Your task to perform on an android device: toggle priority inbox in the gmail app Image 0: 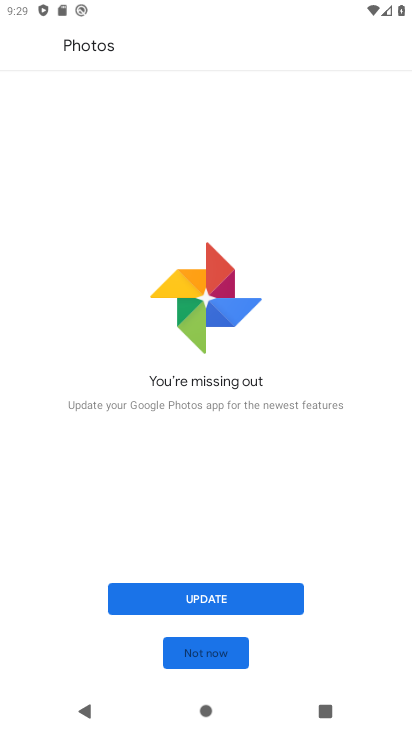
Step 0: press home button
Your task to perform on an android device: toggle priority inbox in the gmail app Image 1: 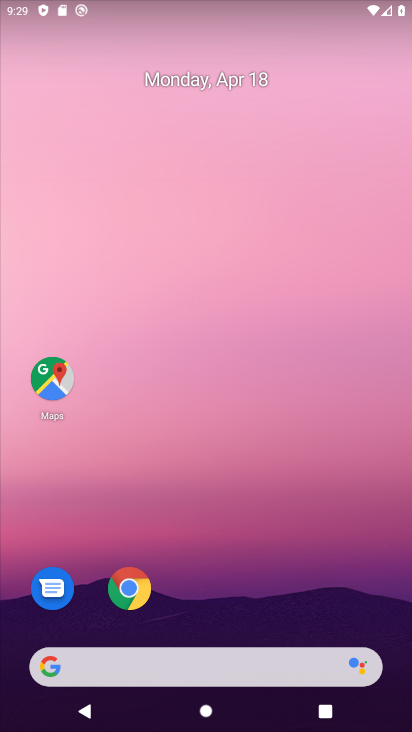
Step 1: drag from (259, 595) to (231, 89)
Your task to perform on an android device: toggle priority inbox in the gmail app Image 2: 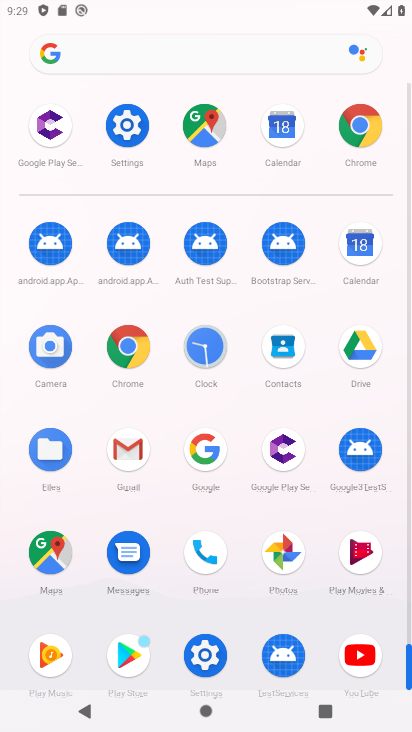
Step 2: click (122, 448)
Your task to perform on an android device: toggle priority inbox in the gmail app Image 3: 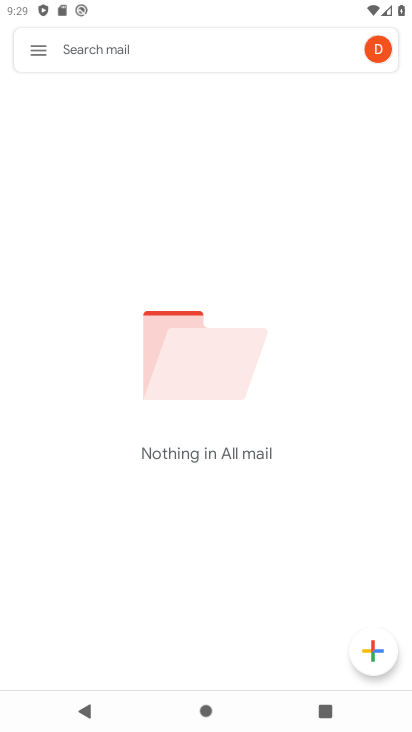
Step 3: click (37, 46)
Your task to perform on an android device: toggle priority inbox in the gmail app Image 4: 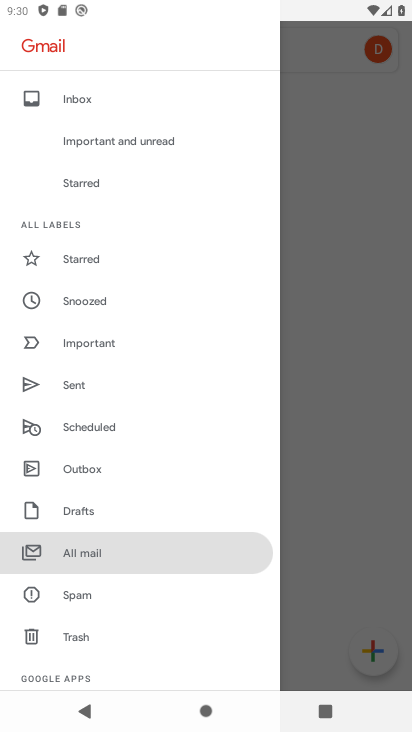
Step 4: drag from (201, 635) to (237, 298)
Your task to perform on an android device: toggle priority inbox in the gmail app Image 5: 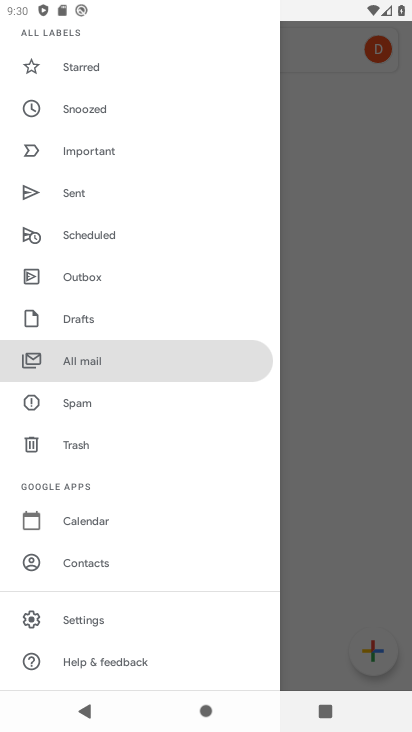
Step 5: click (70, 617)
Your task to perform on an android device: toggle priority inbox in the gmail app Image 6: 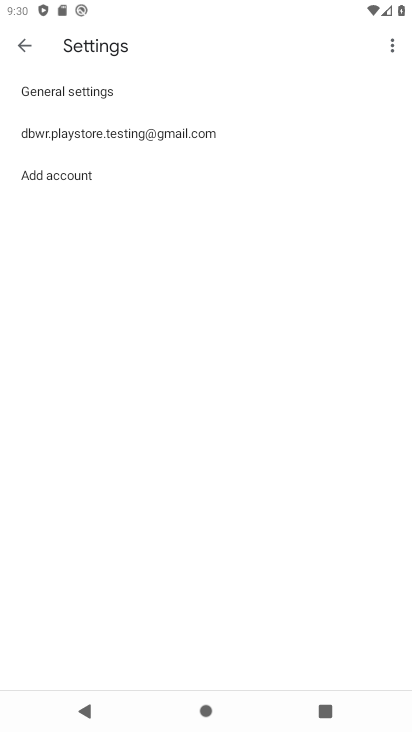
Step 6: click (175, 135)
Your task to perform on an android device: toggle priority inbox in the gmail app Image 7: 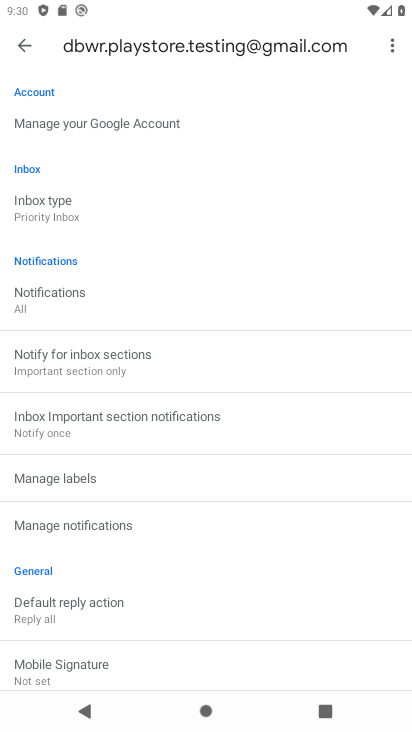
Step 7: click (41, 202)
Your task to perform on an android device: toggle priority inbox in the gmail app Image 8: 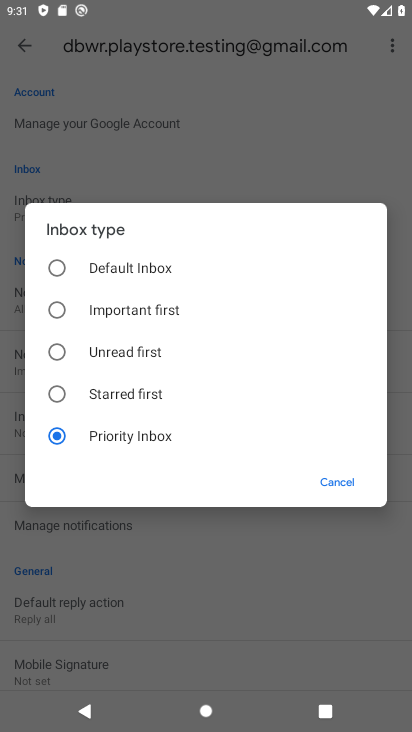
Step 8: click (135, 270)
Your task to perform on an android device: toggle priority inbox in the gmail app Image 9: 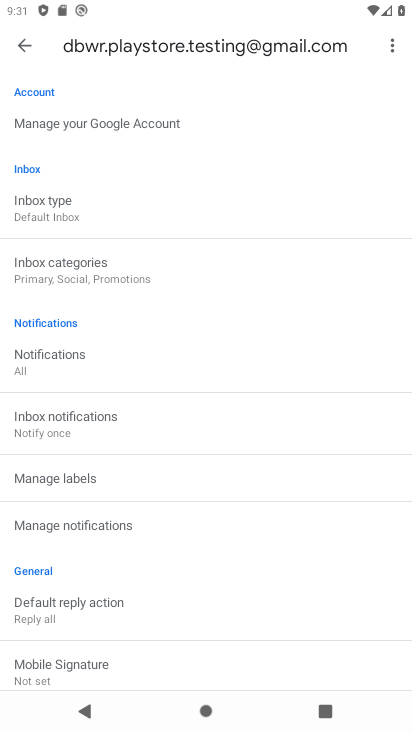
Step 9: task complete